Your task to perform on an android device: Is it going to rain today? Image 0: 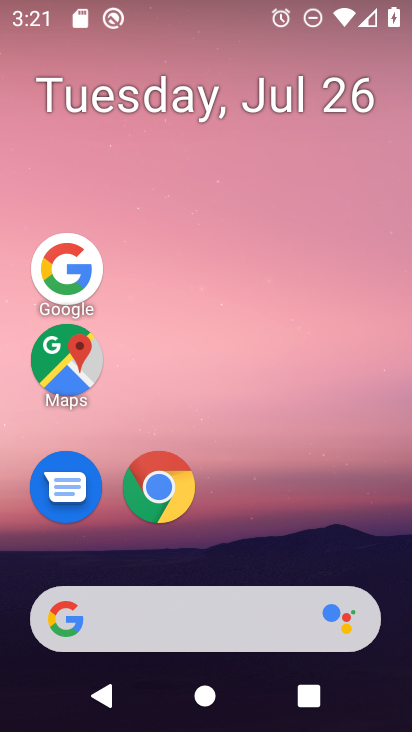
Step 0: drag from (232, 587) to (242, 104)
Your task to perform on an android device: Is it going to rain today? Image 1: 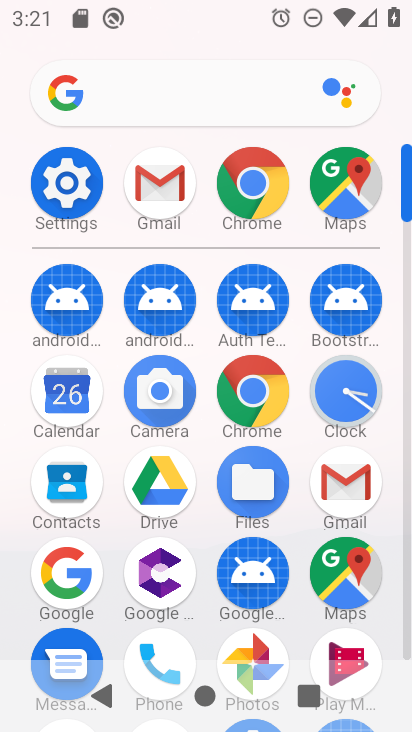
Step 1: drag from (189, 540) to (232, 122)
Your task to perform on an android device: Is it going to rain today? Image 2: 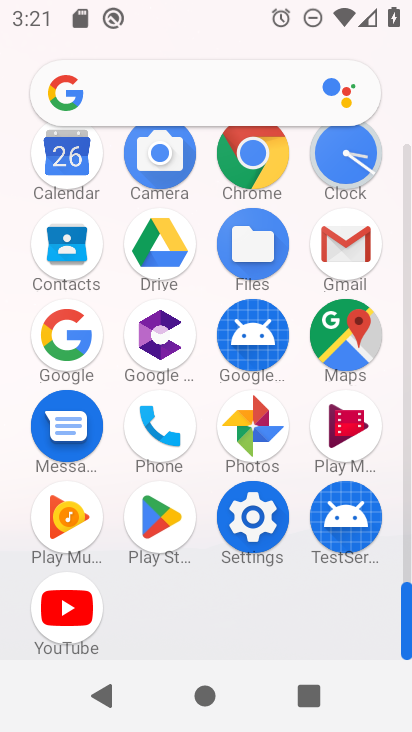
Step 2: click (70, 345)
Your task to perform on an android device: Is it going to rain today? Image 3: 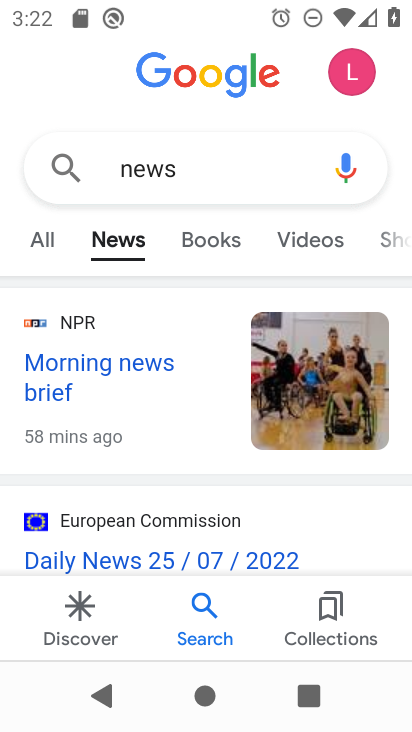
Step 3: click (225, 180)
Your task to perform on an android device: Is it going to rain today? Image 4: 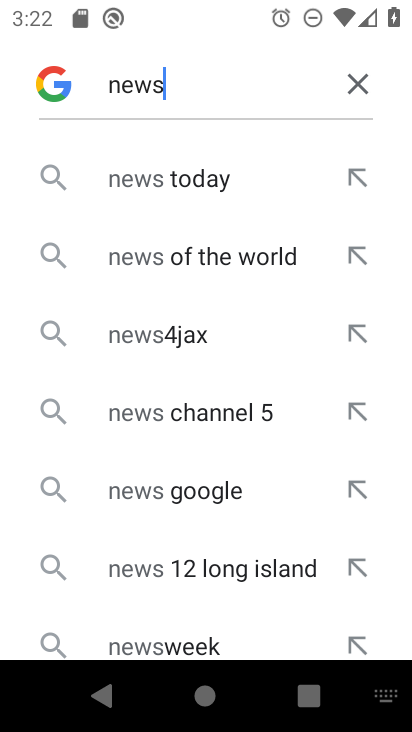
Step 4: click (350, 97)
Your task to perform on an android device: Is it going to rain today? Image 5: 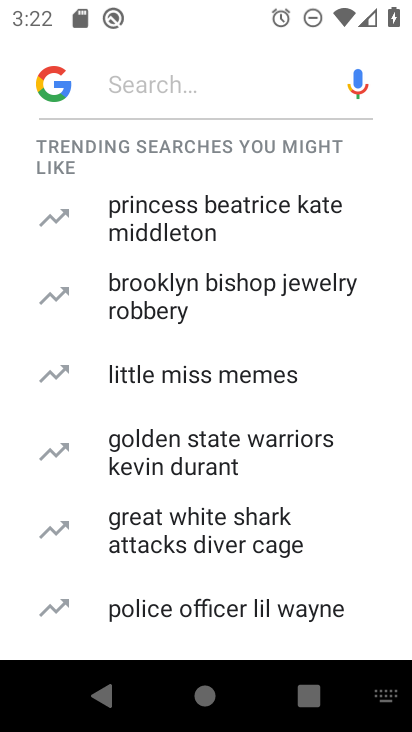
Step 5: type "weather"
Your task to perform on an android device: Is it going to rain today? Image 6: 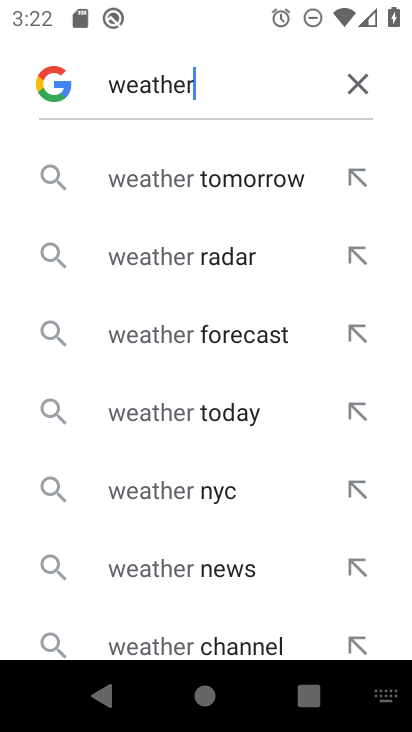
Step 6: click (202, 416)
Your task to perform on an android device: Is it going to rain today? Image 7: 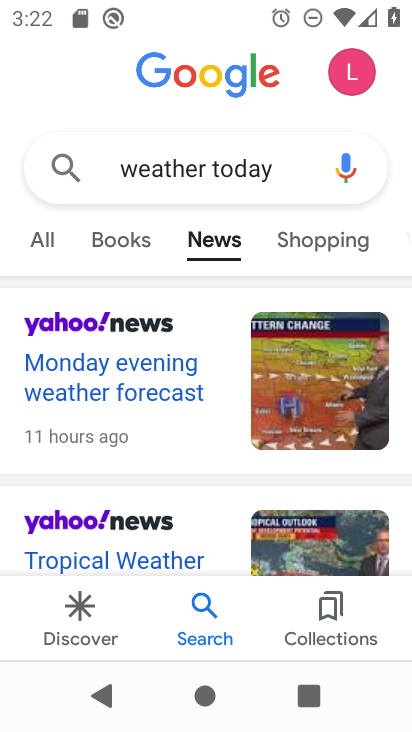
Step 7: click (59, 247)
Your task to perform on an android device: Is it going to rain today? Image 8: 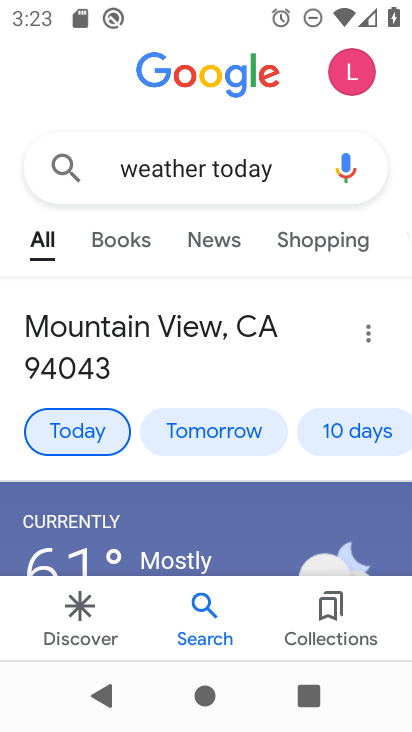
Step 8: task complete